Your task to perform on an android device: Check the news Image 0: 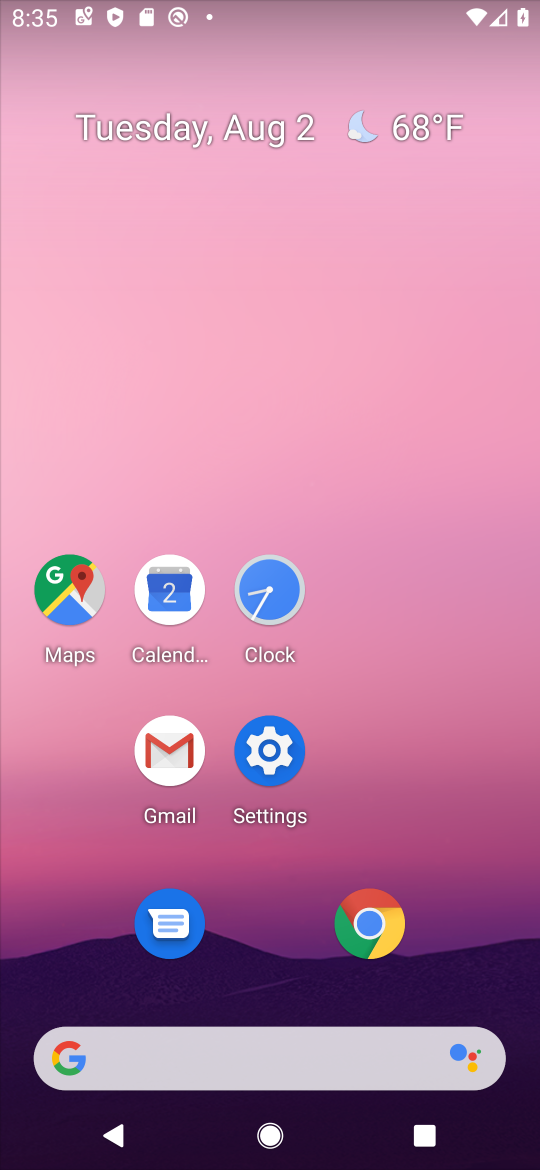
Step 0: drag from (0, 369) to (519, 867)
Your task to perform on an android device: Check the news Image 1: 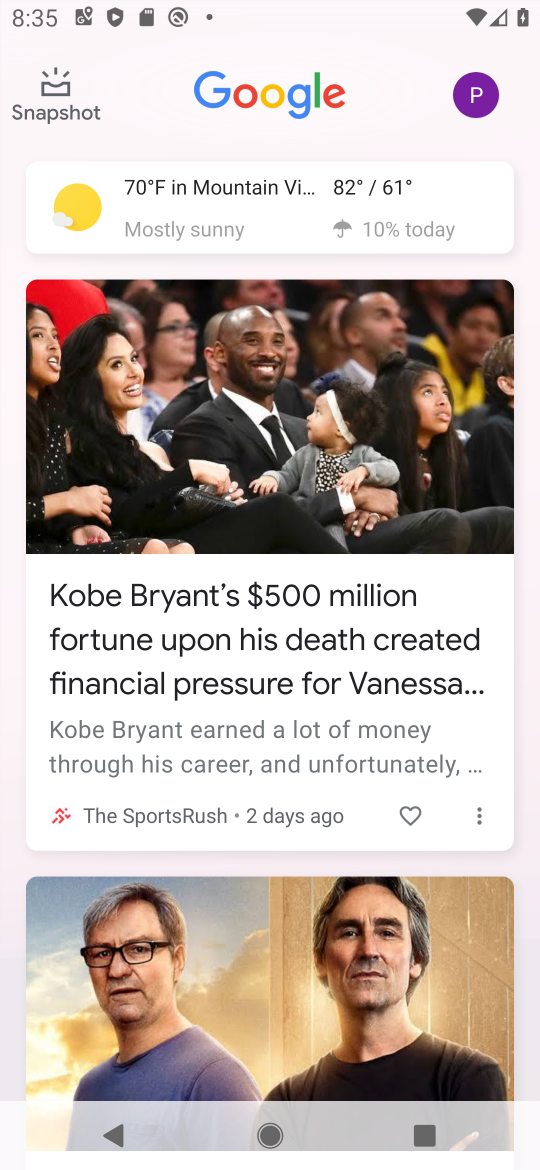
Step 1: task complete